Your task to perform on an android device: uninstall "Yahoo Mail" Image 0: 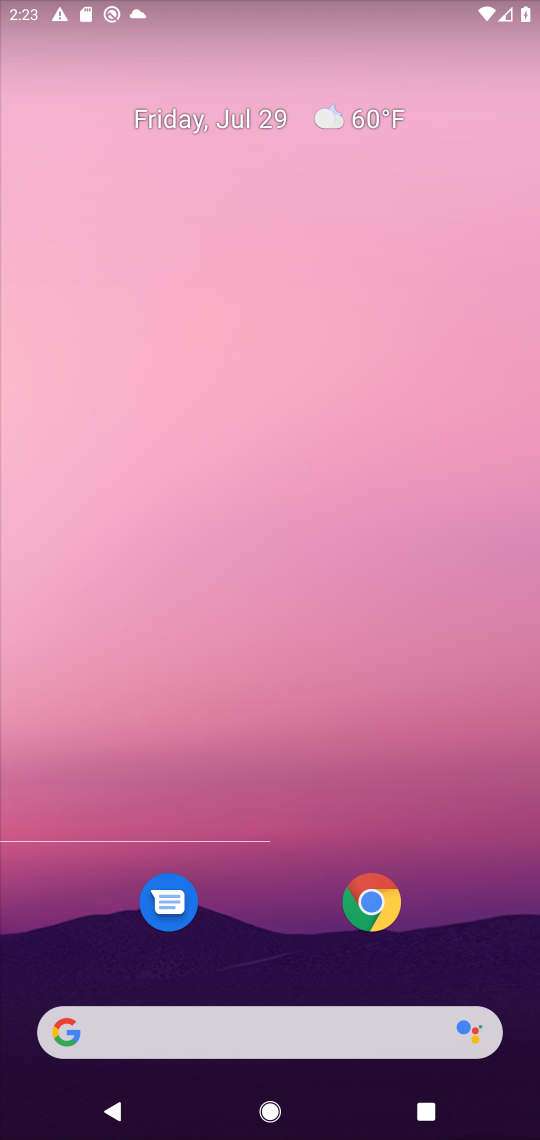
Step 0: press home button
Your task to perform on an android device: uninstall "Yahoo Mail" Image 1: 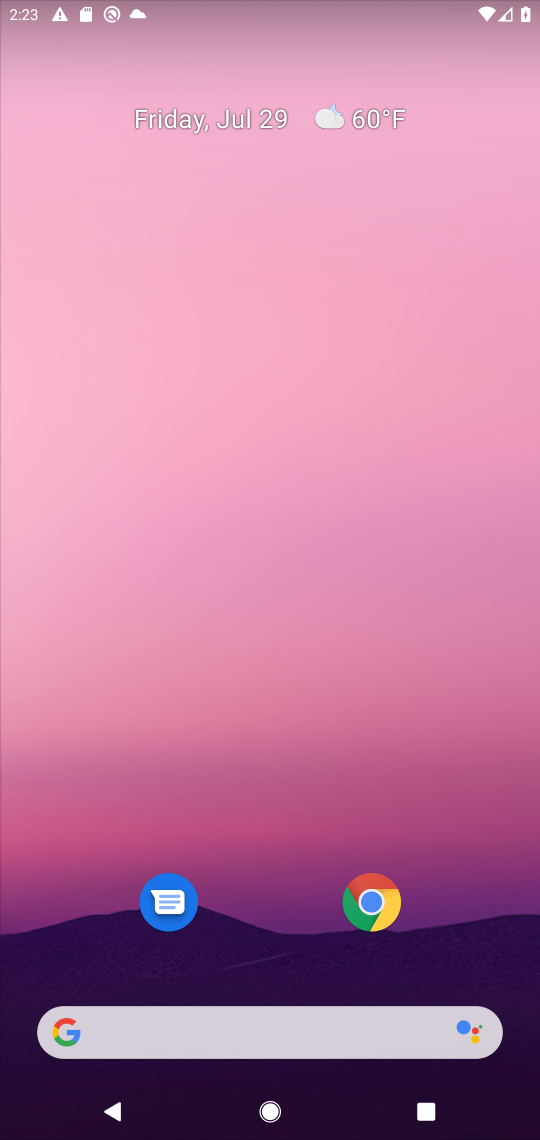
Step 1: drag from (142, 1007) to (228, 220)
Your task to perform on an android device: uninstall "Yahoo Mail" Image 2: 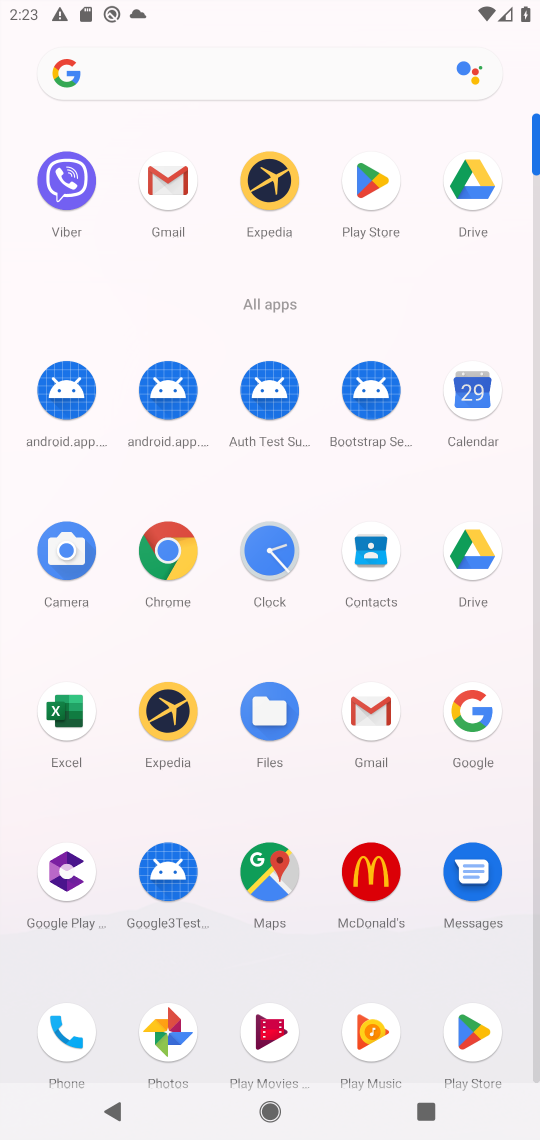
Step 2: click (366, 171)
Your task to perform on an android device: uninstall "Yahoo Mail" Image 3: 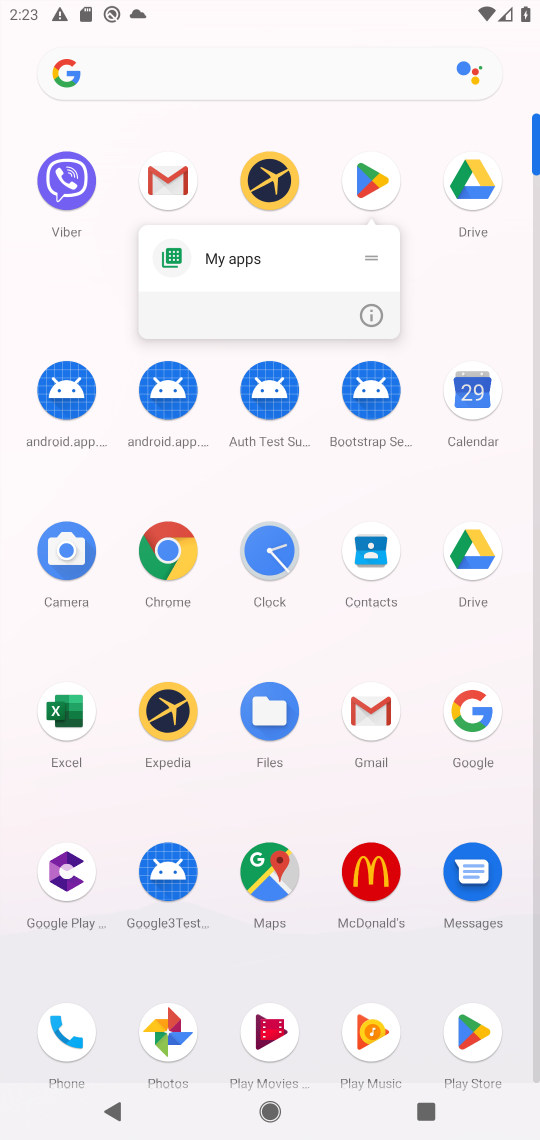
Step 3: click (352, 178)
Your task to perform on an android device: uninstall "Yahoo Mail" Image 4: 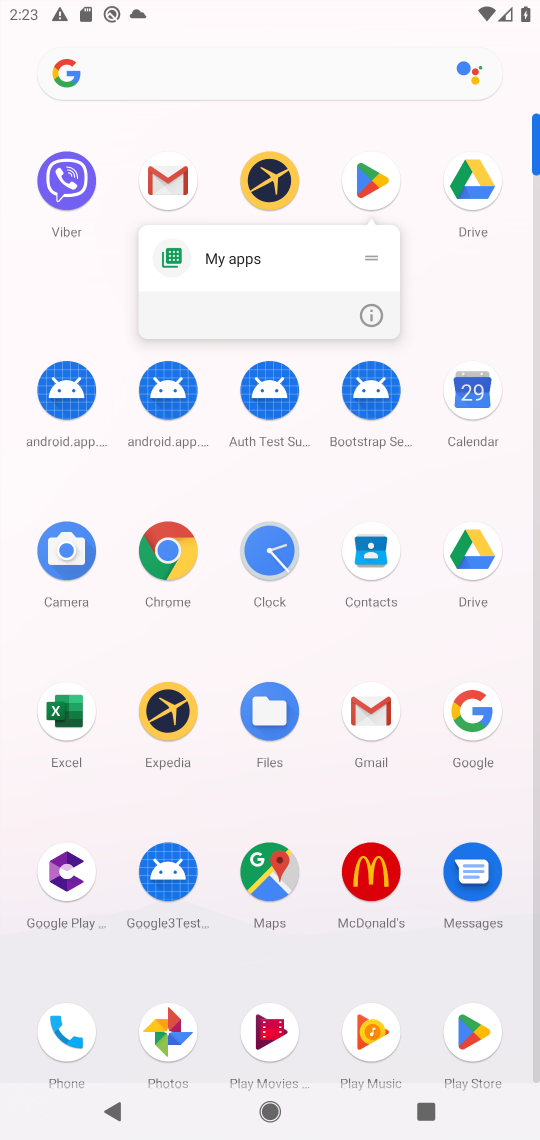
Step 4: click (361, 184)
Your task to perform on an android device: uninstall "Yahoo Mail" Image 5: 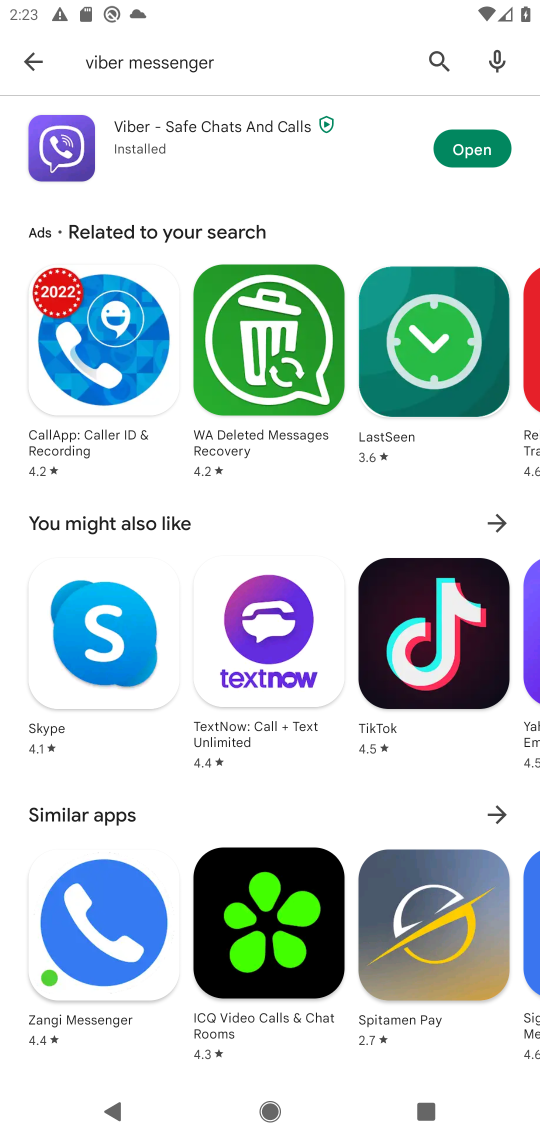
Step 5: drag from (23, 64) to (79, 64)
Your task to perform on an android device: uninstall "Yahoo Mail" Image 6: 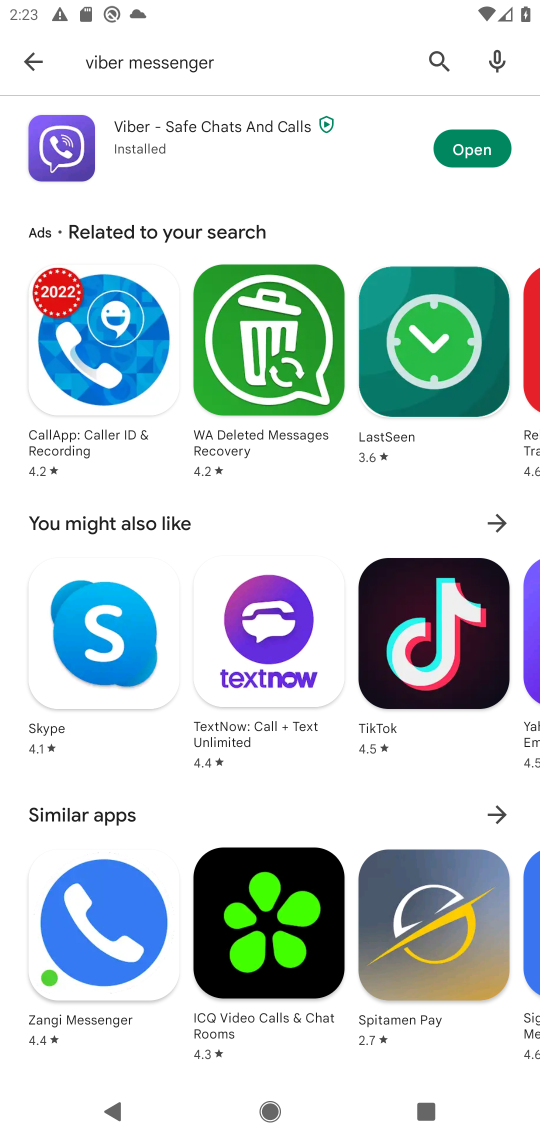
Step 6: click (436, 62)
Your task to perform on an android device: uninstall "Yahoo Mail" Image 7: 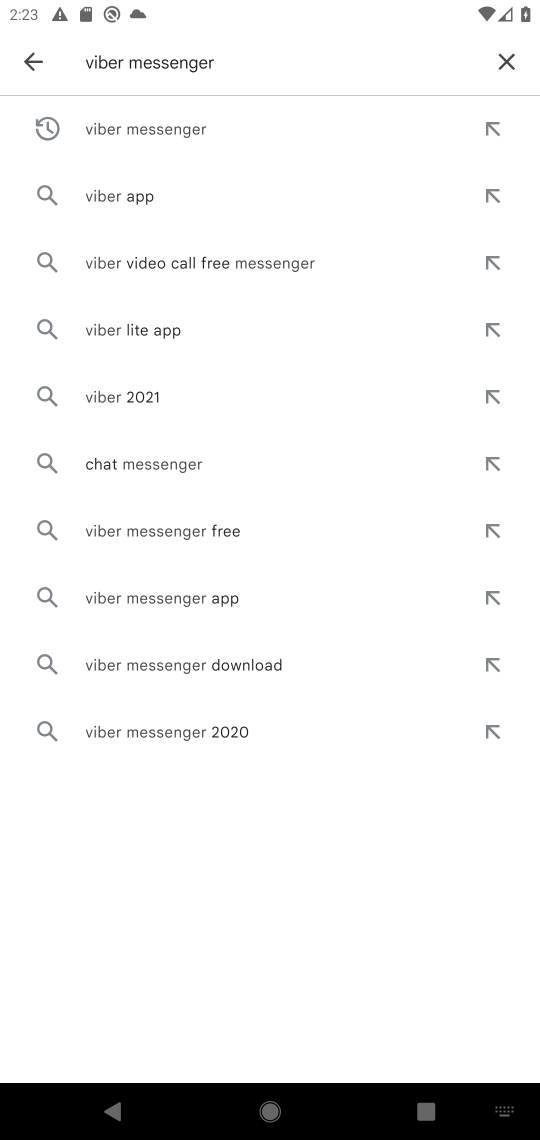
Step 7: click (503, 66)
Your task to perform on an android device: uninstall "Yahoo Mail" Image 8: 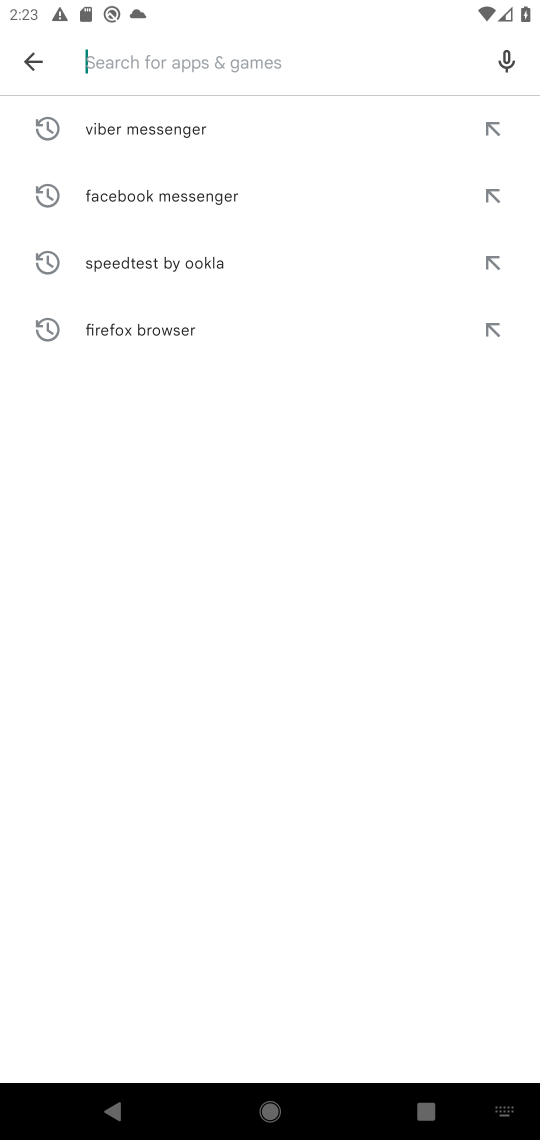
Step 8: type "Yahoo Mail"
Your task to perform on an android device: uninstall "Yahoo Mail" Image 9: 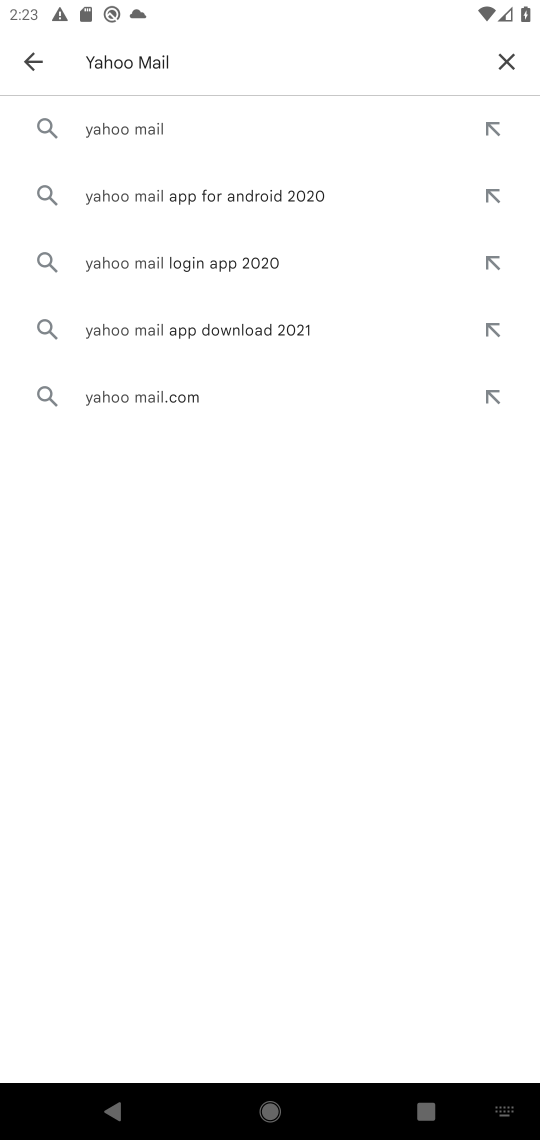
Step 9: click (134, 137)
Your task to perform on an android device: uninstall "Yahoo Mail" Image 10: 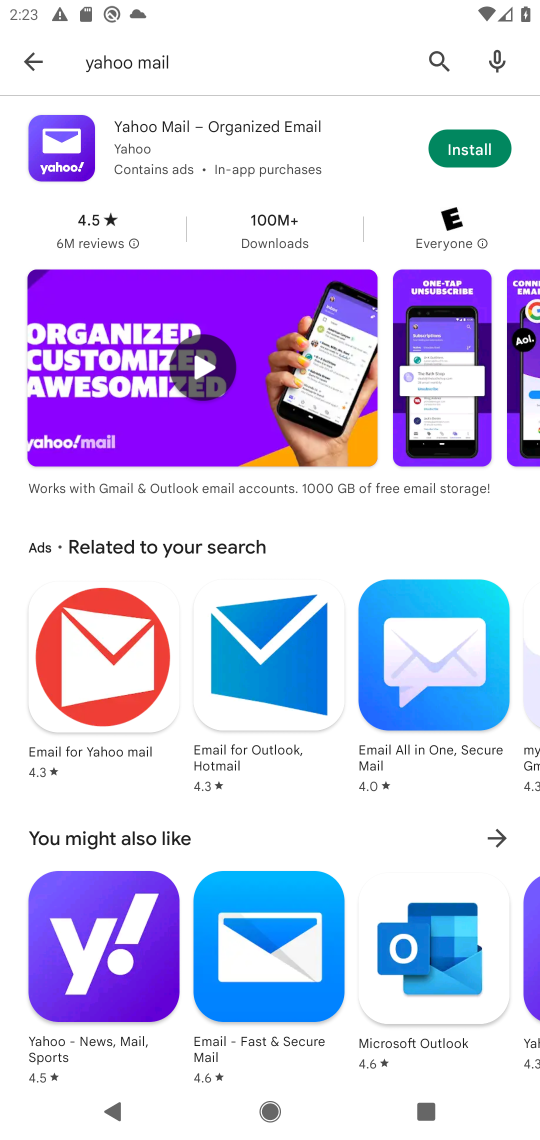
Step 10: task complete